Your task to perform on an android device: set the timer Image 0: 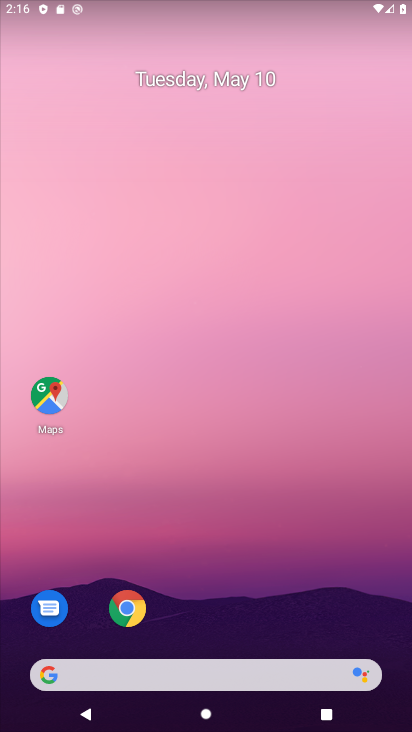
Step 0: drag from (393, 649) to (330, 0)
Your task to perform on an android device: set the timer Image 1: 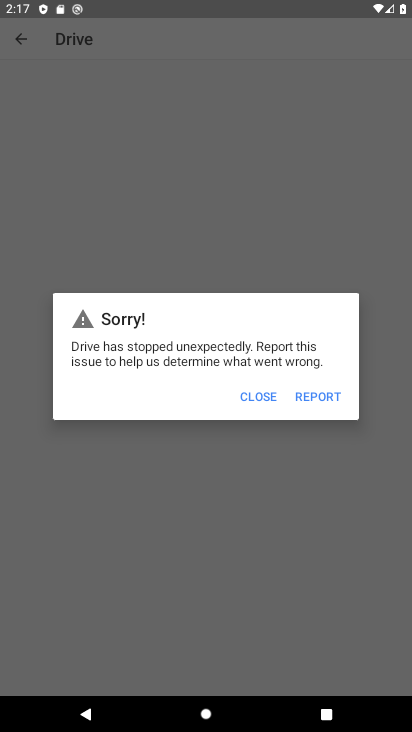
Step 1: press home button
Your task to perform on an android device: set the timer Image 2: 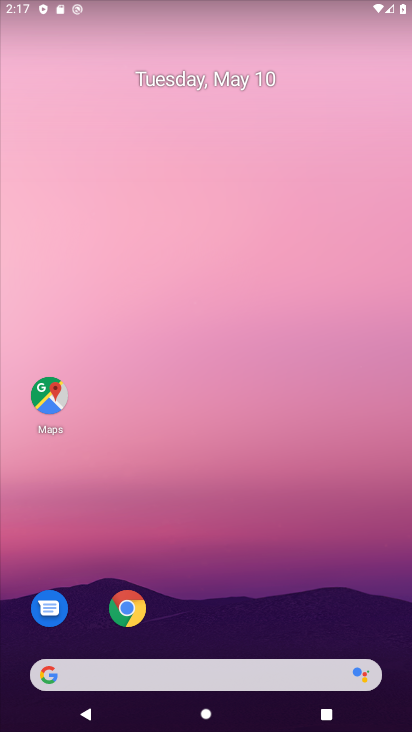
Step 2: drag from (384, 636) to (335, 6)
Your task to perform on an android device: set the timer Image 3: 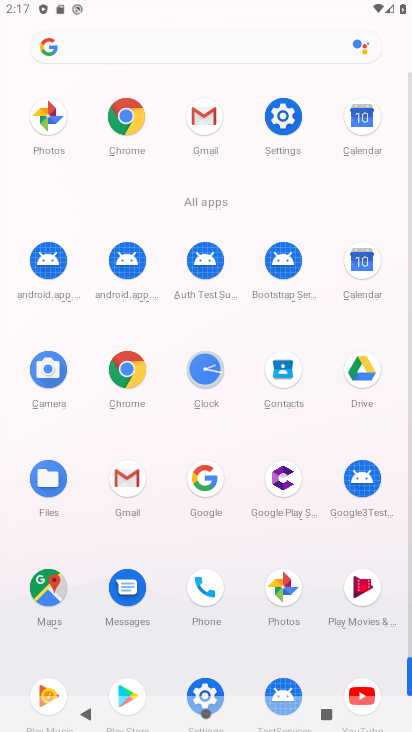
Step 3: click (203, 368)
Your task to perform on an android device: set the timer Image 4: 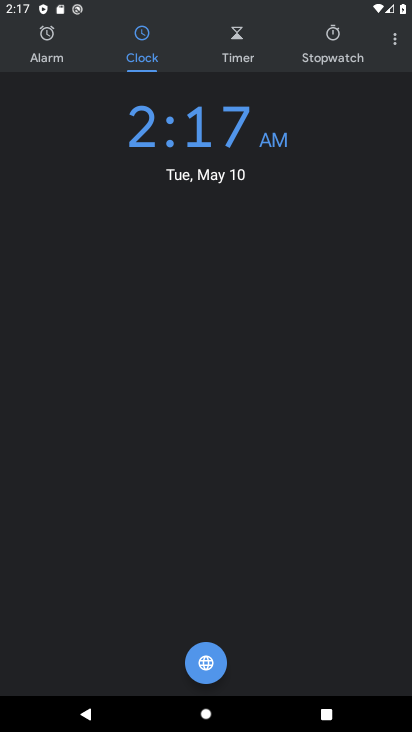
Step 4: click (238, 40)
Your task to perform on an android device: set the timer Image 5: 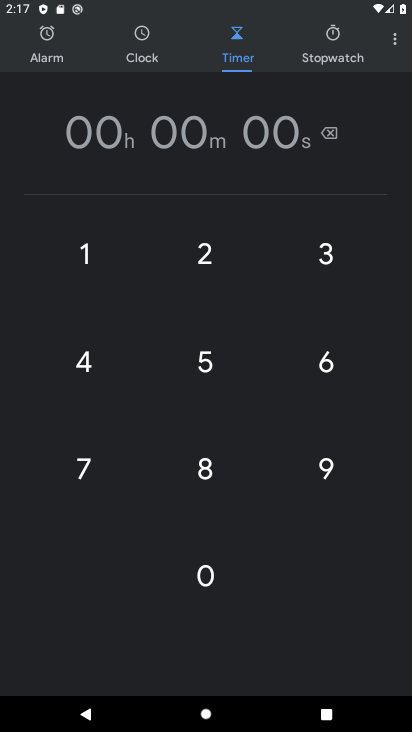
Step 5: click (209, 250)
Your task to perform on an android device: set the timer Image 6: 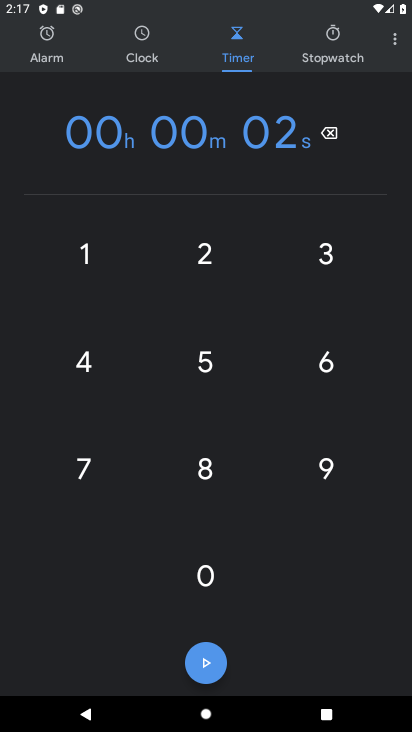
Step 6: click (326, 252)
Your task to perform on an android device: set the timer Image 7: 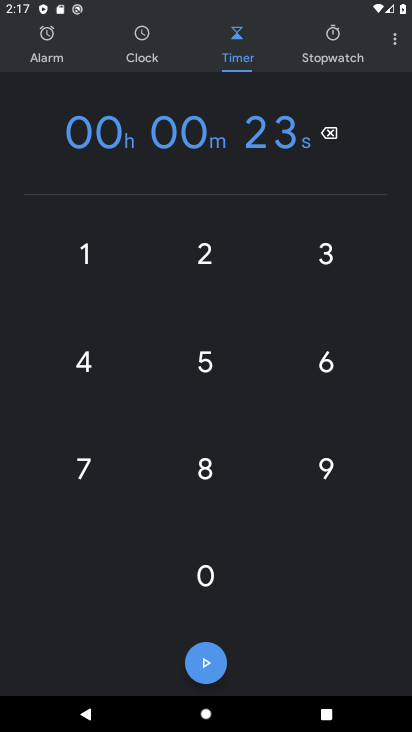
Step 7: click (204, 576)
Your task to perform on an android device: set the timer Image 8: 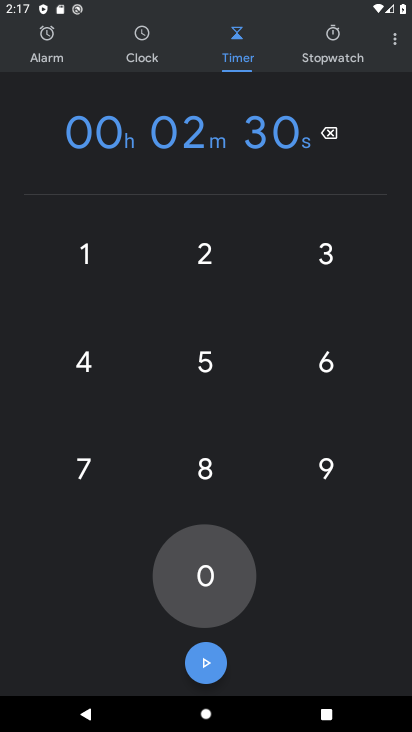
Step 8: click (204, 576)
Your task to perform on an android device: set the timer Image 9: 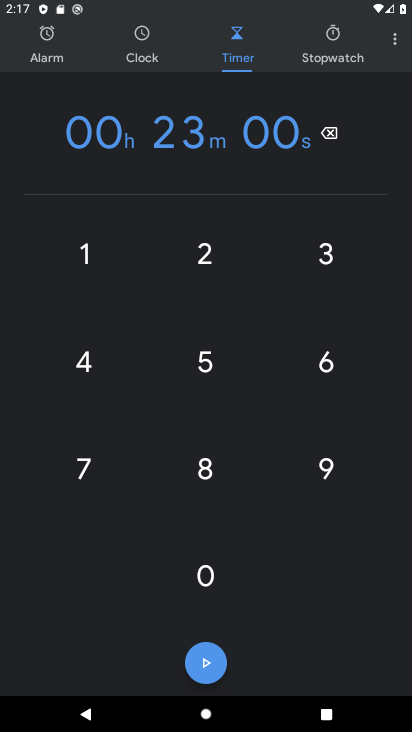
Step 9: click (204, 576)
Your task to perform on an android device: set the timer Image 10: 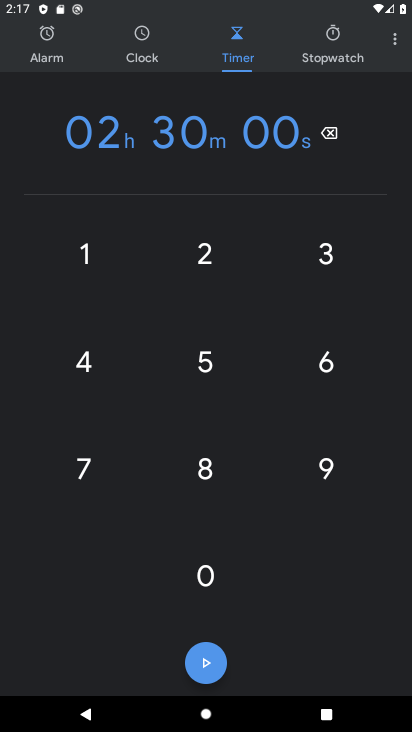
Step 10: task complete